Your task to perform on an android device: set the stopwatch Image 0: 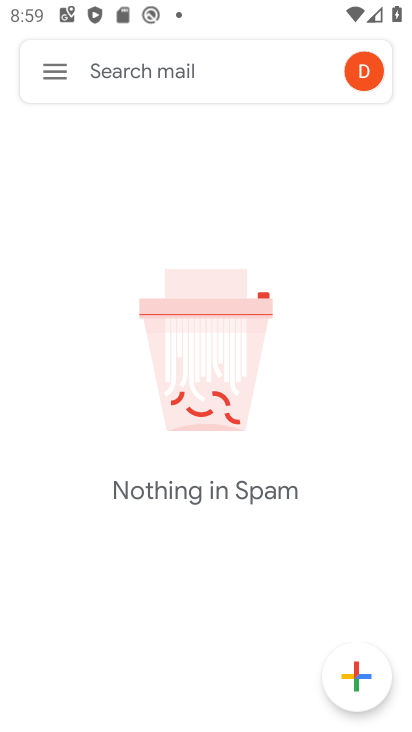
Step 0: press home button
Your task to perform on an android device: set the stopwatch Image 1: 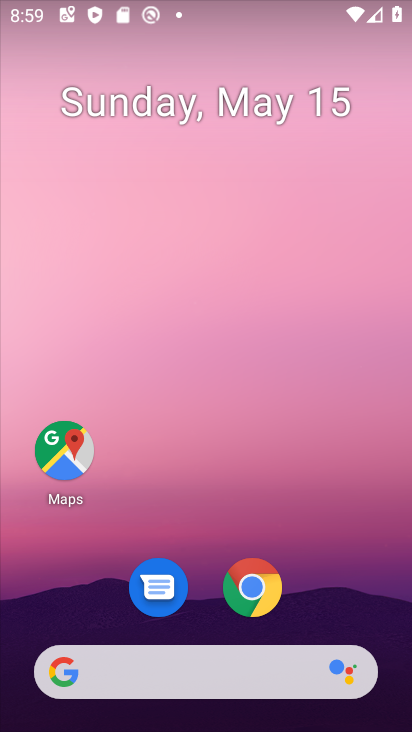
Step 1: drag from (401, 607) to (318, 67)
Your task to perform on an android device: set the stopwatch Image 2: 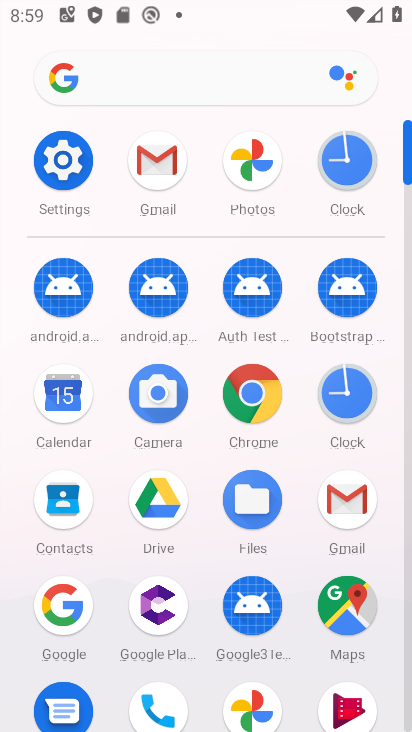
Step 2: click (357, 397)
Your task to perform on an android device: set the stopwatch Image 3: 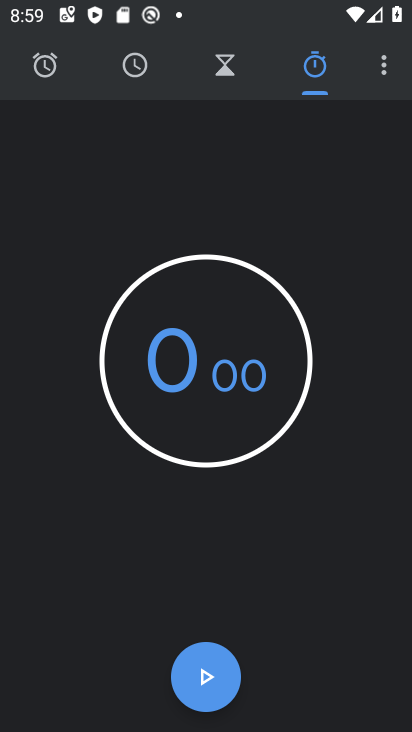
Step 3: task complete